Your task to perform on an android device: set an alarm Image 0: 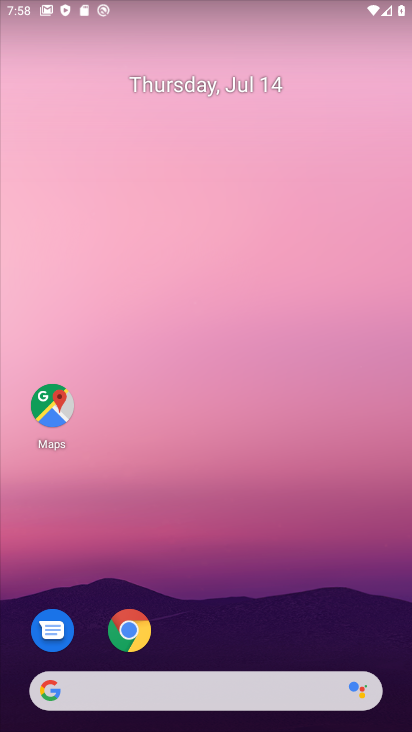
Step 0: drag from (204, 720) to (247, 348)
Your task to perform on an android device: set an alarm Image 1: 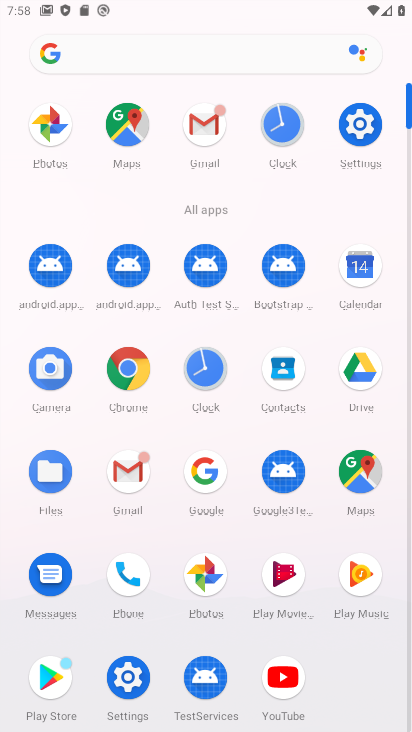
Step 1: click (213, 361)
Your task to perform on an android device: set an alarm Image 2: 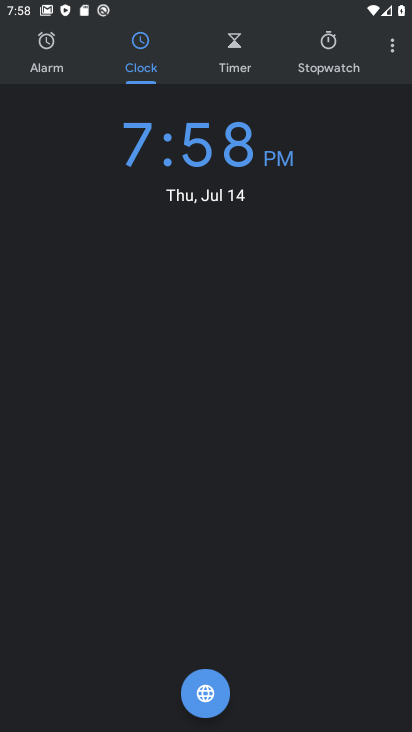
Step 2: click (42, 48)
Your task to perform on an android device: set an alarm Image 3: 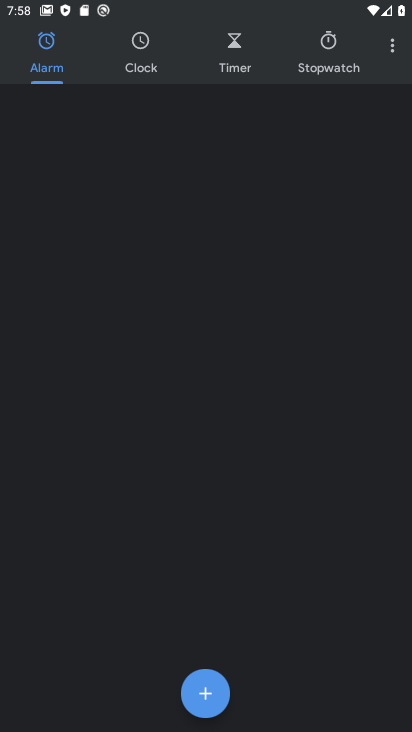
Step 3: click (205, 690)
Your task to perform on an android device: set an alarm Image 4: 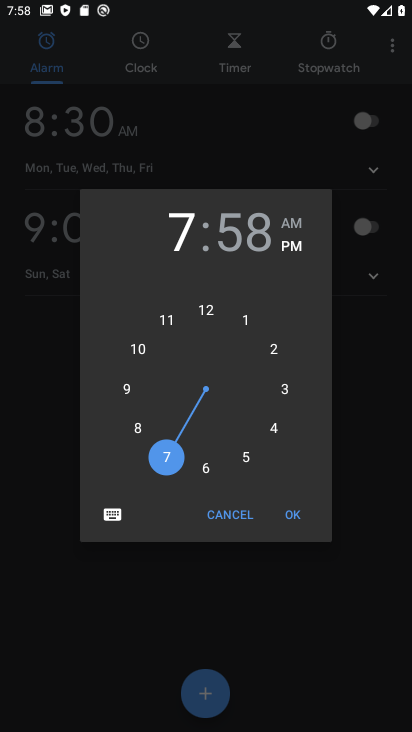
Step 4: click (207, 473)
Your task to perform on an android device: set an alarm Image 5: 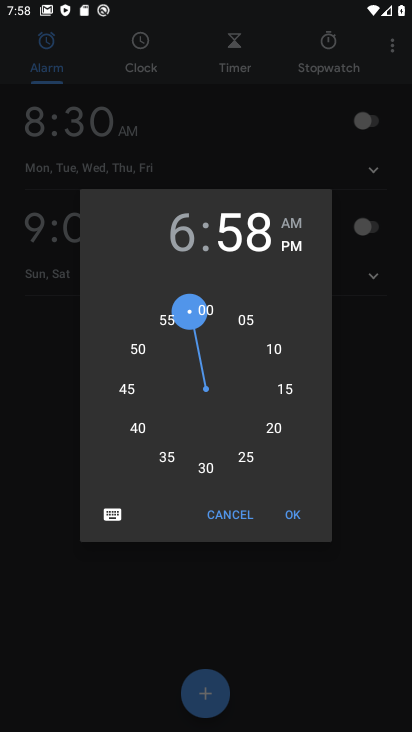
Step 5: click (294, 509)
Your task to perform on an android device: set an alarm Image 6: 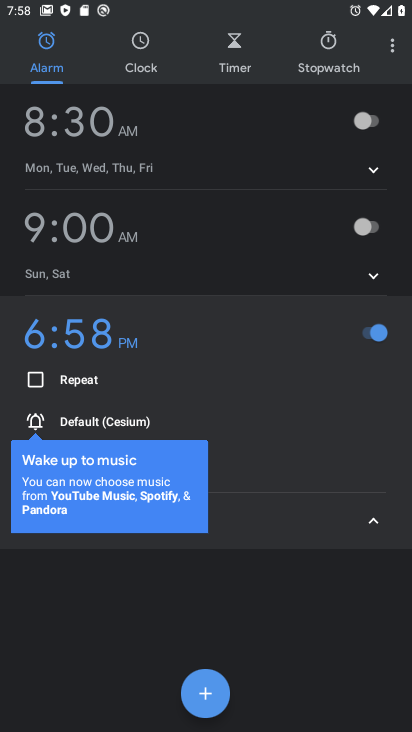
Step 6: task complete